Your task to perform on an android device: read, delete, or share a saved page in the chrome app Image 0: 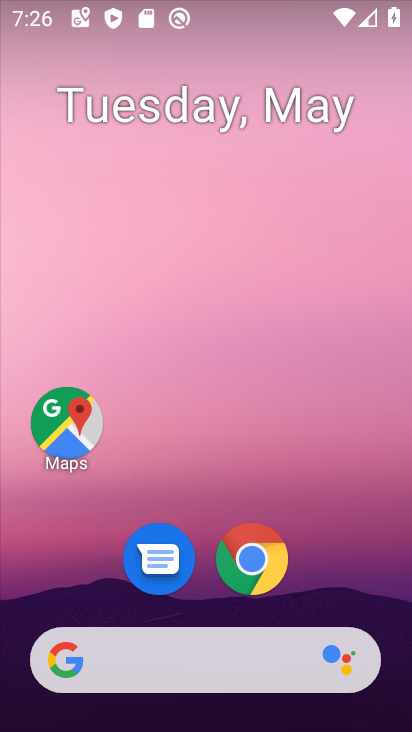
Step 0: drag from (396, 648) to (266, 82)
Your task to perform on an android device: read, delete, or share a saved page in the chrome app Image 1: 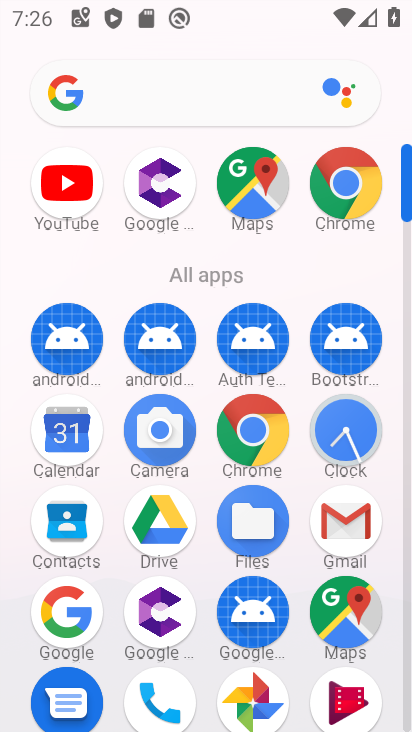
Step 1: click (334, 214)
Your task to perform on an android device: read, delete, or share a saved page in the chrome app Image 2: 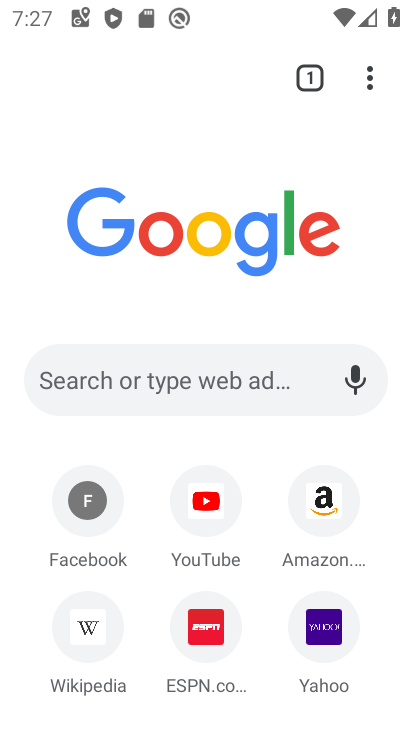
Step 2: task complete